Your task to perform on an android device: Search for "acer nitro" on target.com, select the first entry, add it to the cart, then select checkout. Image 0: 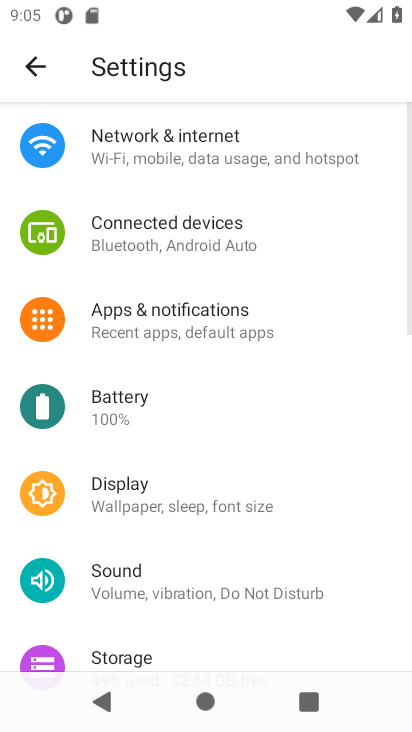
Step 0: press home button
Your task to perform on an android device: Search for "acer nitro" on target.com, select the first entry, add it to the cart, then select checkout. Image 1: 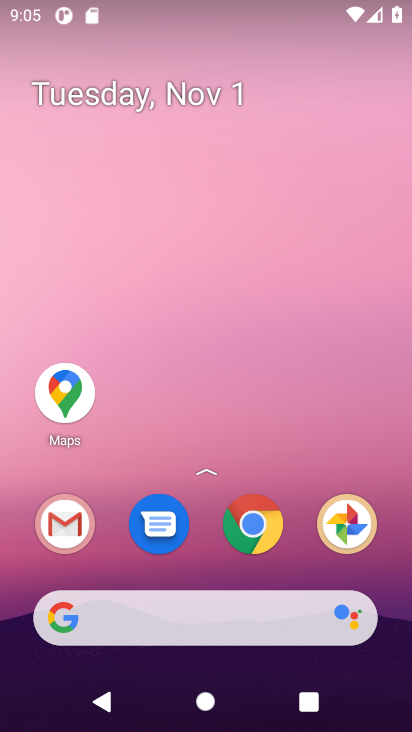
Step 1: click (104, 616)
Your task to perform on an android device: Search for "acer nitro" on target.com, select the first entry, add it to the cart, then select checkout. Image 2: 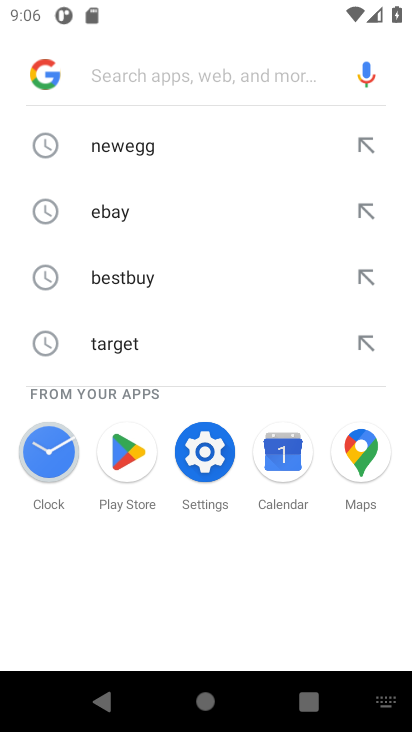
Step 2: type "target.com"
Your task to perform on an android device: Search for "acer nitro" on target.com, select the first entry, add it to the cart, then select checkout. Image 3: 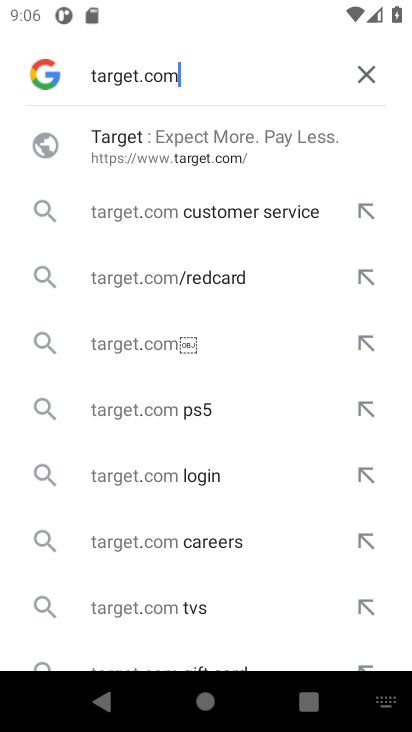
Step 3: press enter
Your task to perform on an android device: Search for "acer nitro" on target.com, select the first entry, add it to the cart, then select checkout. Image 4: 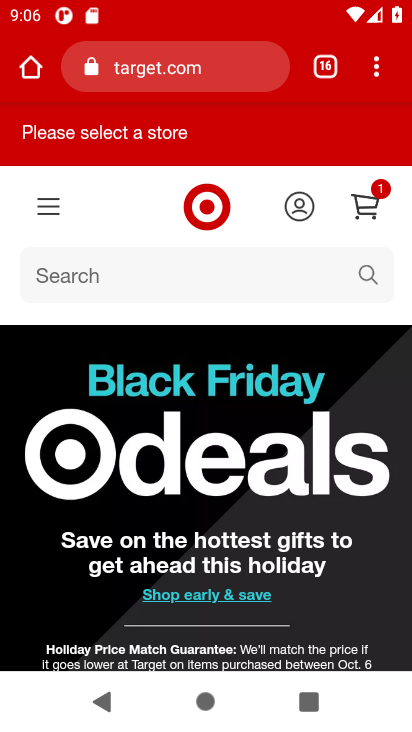
Step 4: click (54, 276)
Your task to perform on an android device: Search for "acer nitro" on target.com, select the first entry, add it to the cart, then select checkout. Image 5: 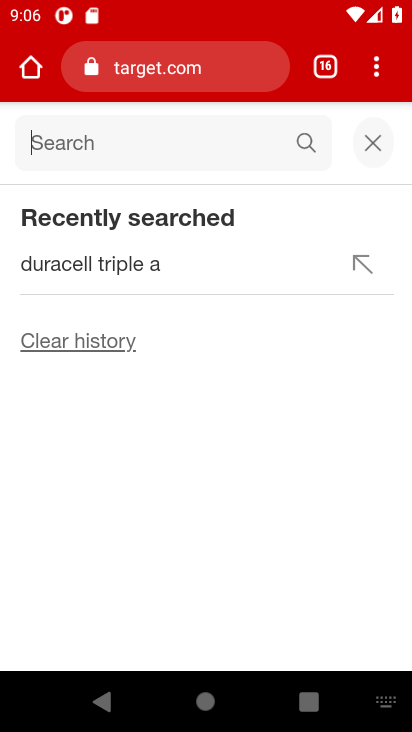
Step 5: type "acer nitro"
Your task to perform on an android device: Search for "acer nitro" on target.com, select the first entry, add it to the cart, then select checkout. Image 6: 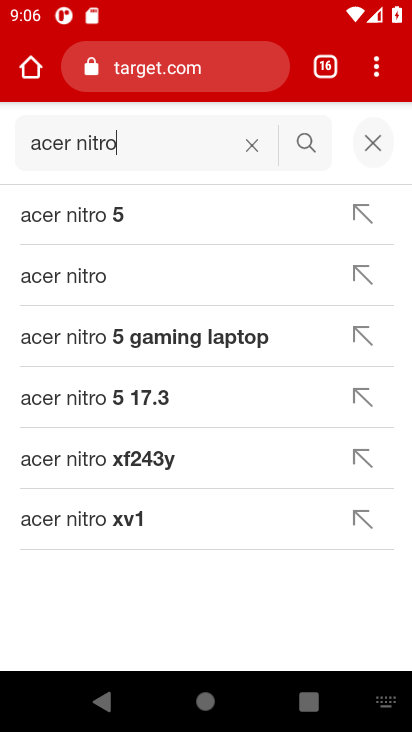
Step 6: click (302, 133)
Your task to perform on an android device: Search for "acer nitro" on target.com, select the first entry, add it to the cart, then select checkout. Image 7: 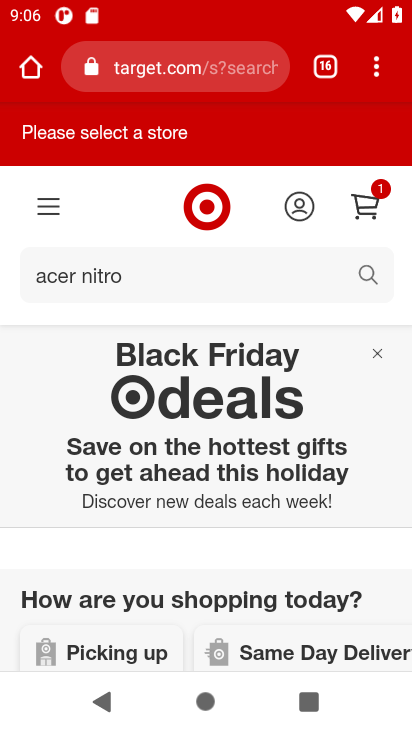
Step 7: drag from (252, 557) to (245, 272)
Your task to perform on an android device: Search for "acer nitro" on target.com, select the first entry, add it to the cart, then select checkout. Image 8: 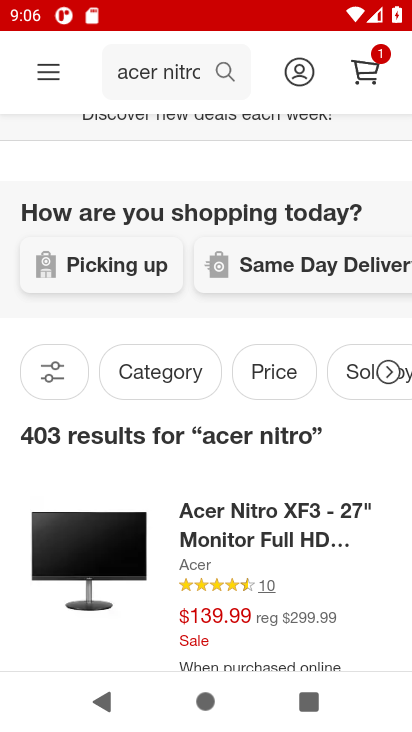
Step 8: drag from (244, 580) to (255, 358)
Your task to perform on an android device: Search for "acer nitro" on target.com, select the first entry, add it to the cart, then select checkout. Image 9: 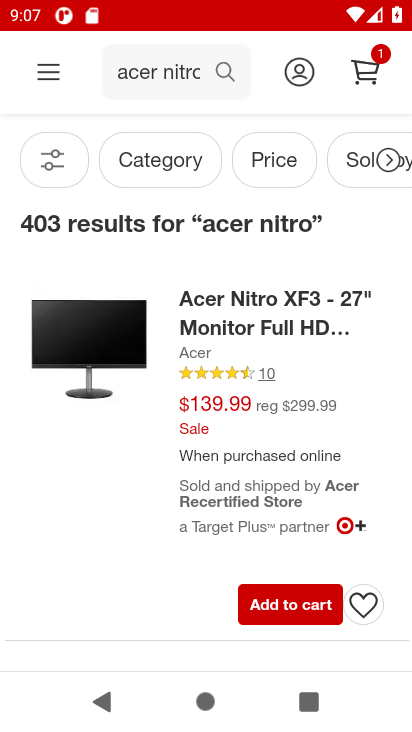
Step 9: click (275, 604)
Your task to perform on an android device: Search for "acer nitro" on target.com, select the first entry, add it to the cart, then select checkout. Image 10: 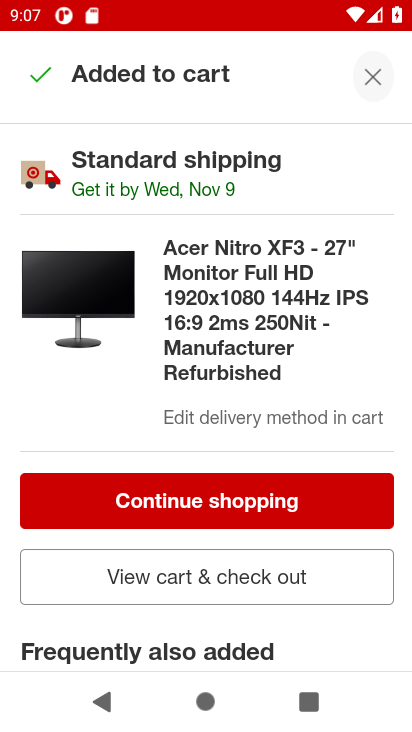
Step 10: click (185, 582)
Your task to perform on an android device: Search for "acer nitro" on target.com, select the first entry, add it to the cart, then select checkout. Image 11: 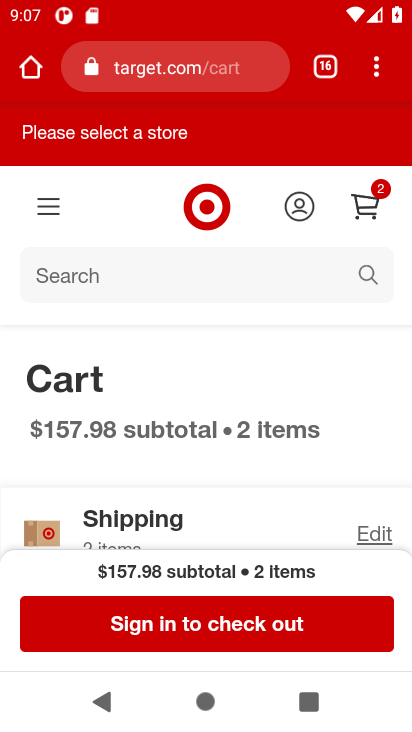
Step 11: click (289, 623)
Your task to perform on an android device: Search for "acer nitro" on target.com, select the first entry, add it to the cart, then select checkout. Image 12: 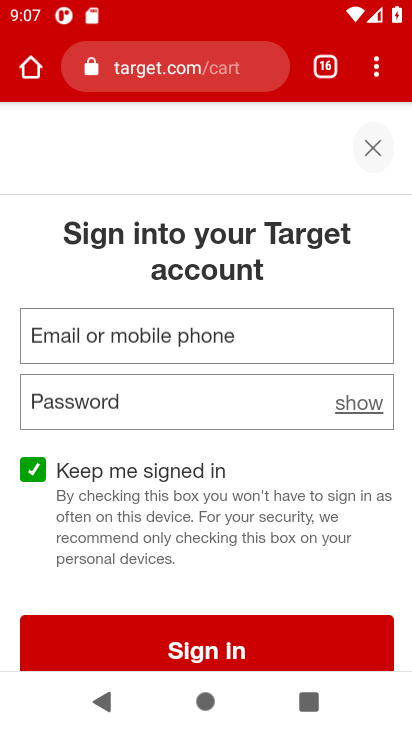
Step 12: task complete